Your task to perform on an android device: turn off location Image 0: 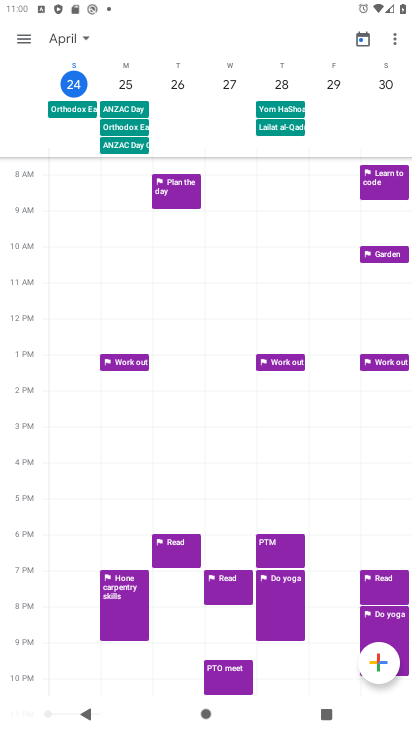
Step 0: press home button
Your task to perform on an android device: turn off location Image 1: 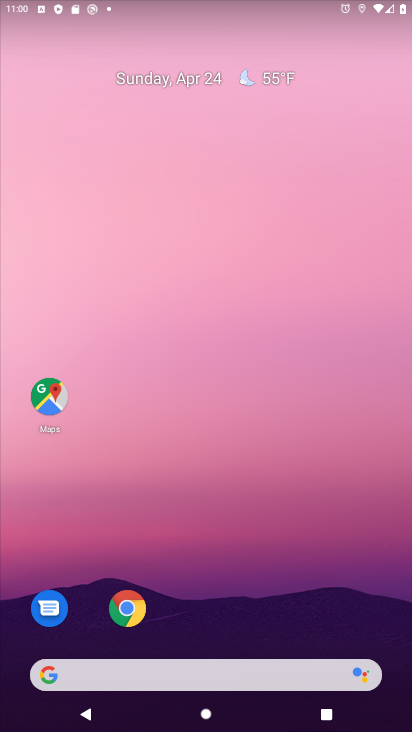
Step 1: drag from (393, 633) to (273, 70)
Your task to perform on an android device: turn off location Image 2: 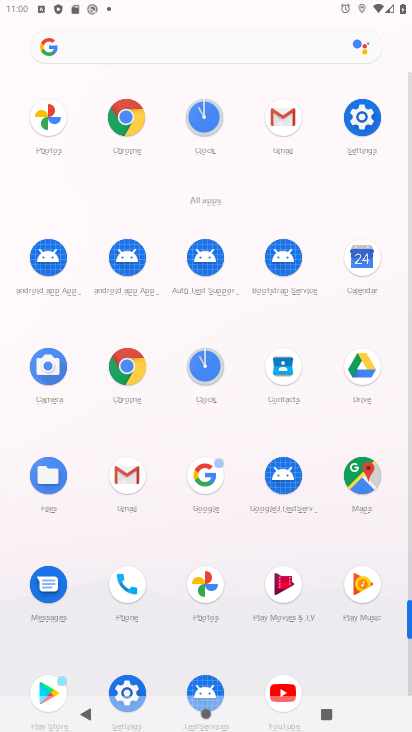
Step 2: click (411, 683)
Your task to perform on an android device: turn off location Image 3: 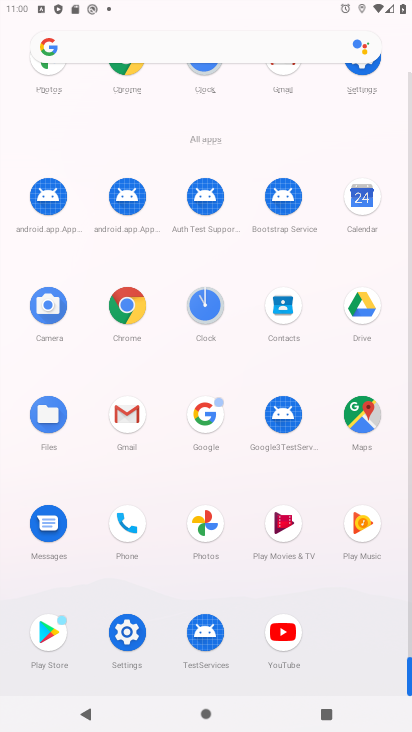
Step 3: click (128, 630)
Your task to perform on an android device: turn off location Image 4: 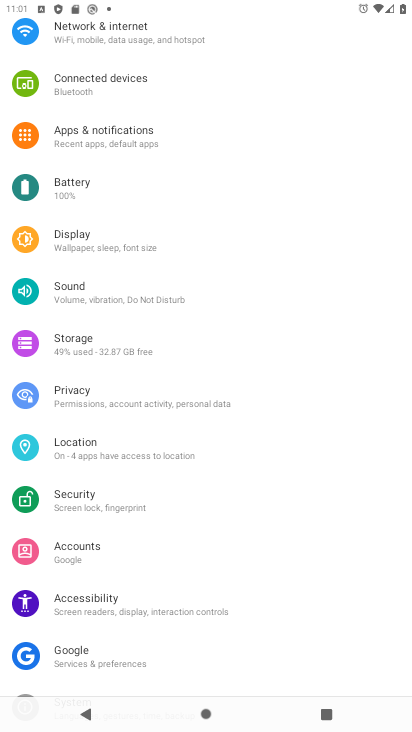
Step 4: click (56, 446)
Your task to perform on an android device: turn off location Image 5: 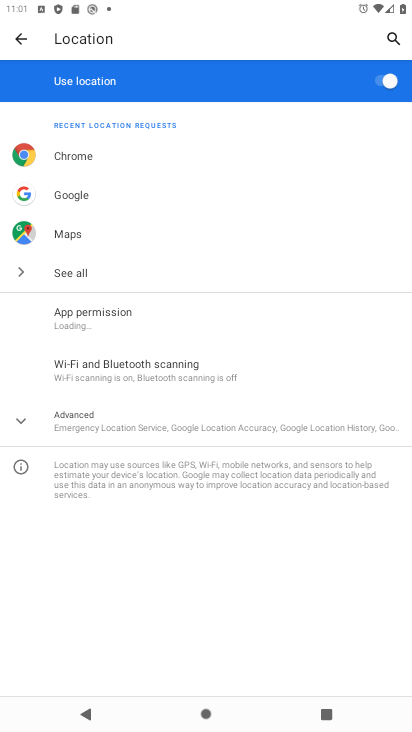
Step 5: click (377, 81)
Your task to perform on an android device: turn off location Image 6: 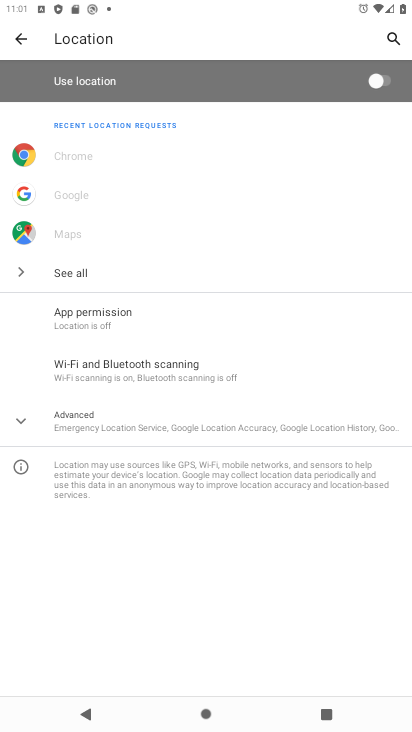
Step 6: task complete